Your task to perform on an android device: Open accessibility settings Image 0: 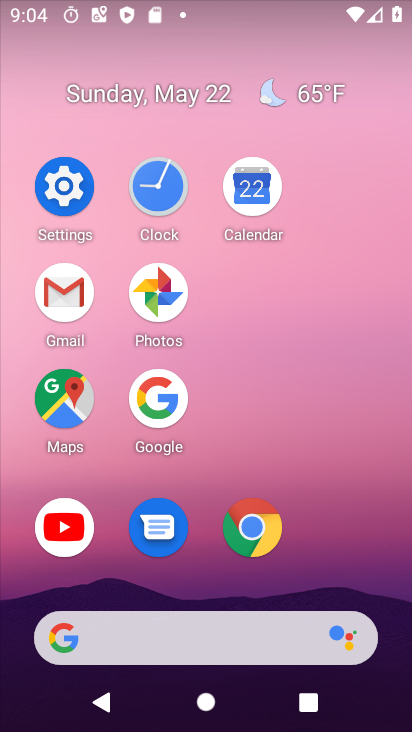
Step 0: click (72, 185)
Your task to perform on an android device: Open accessibility settings Image 1: 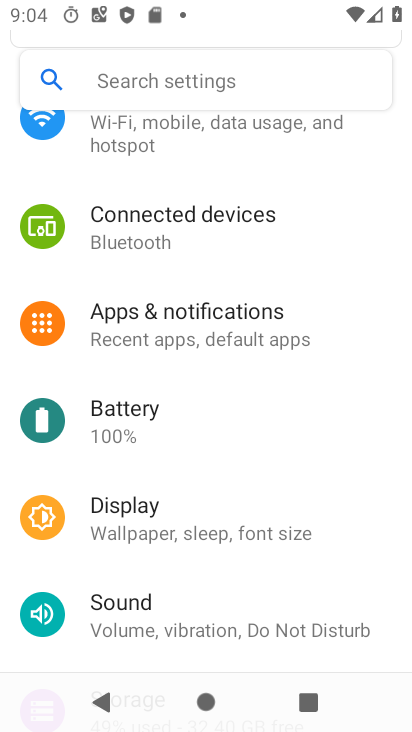
Step 1: drag from (257, 595) to (327, 106)
Your task to perform on an android device: Open accessibility settings Image 2: 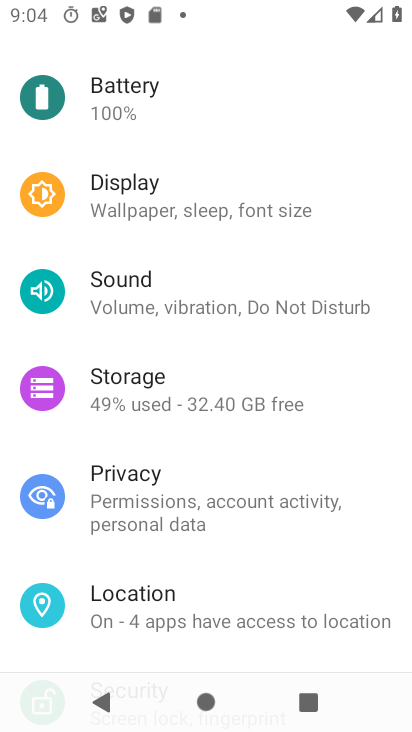
Step 2: drag from (245, 599) to (274, 180)
Your task to perform on an android device: Open accessibility settings Image 3: 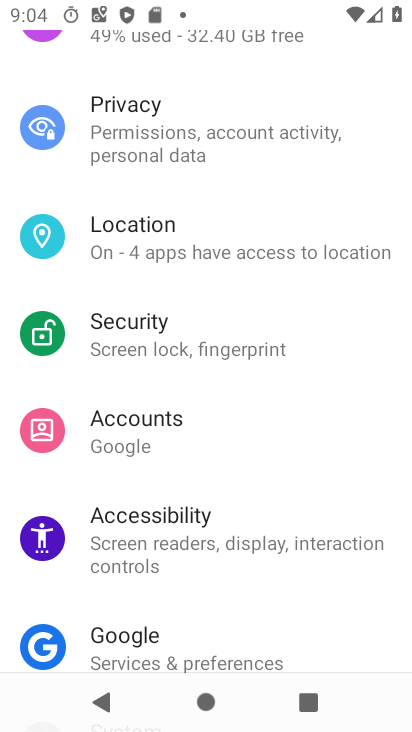
Step 3: click (243, 523)
Your task to perform on an android device: Open accessibility settings Image 4: 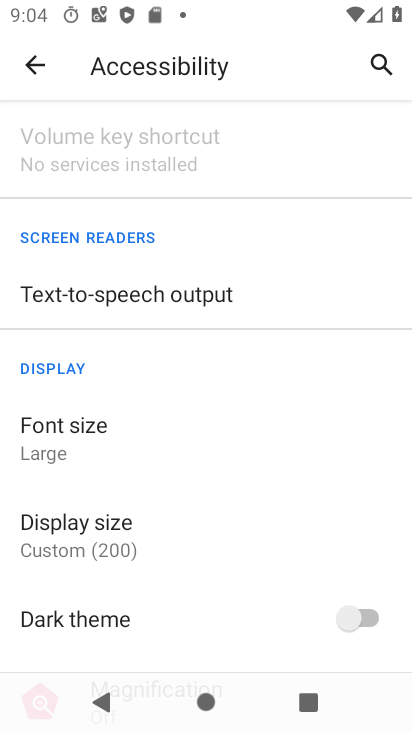
Step 4: task complete